Your task to perform on an android device: What's the weather today? Image 0: 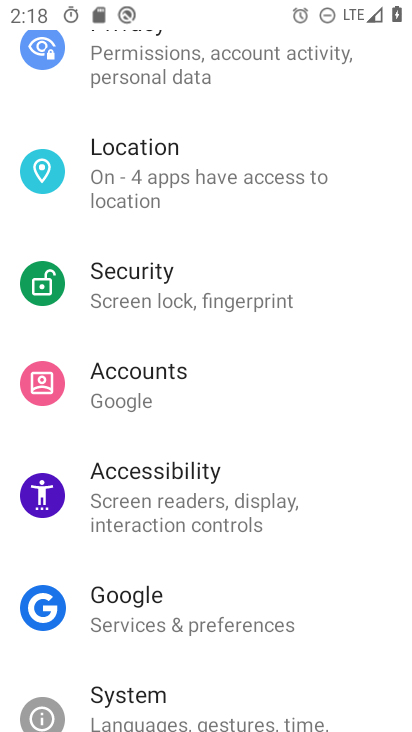
Step 0: press home button
Your task to perform on an android device: What's the weather today? Image 1: 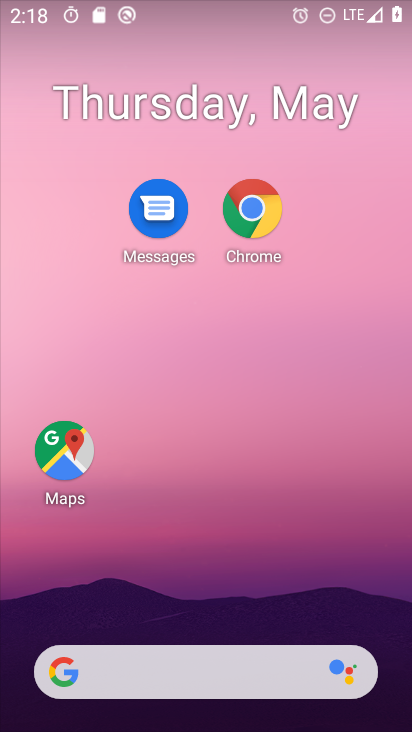
Step 1: click (161, 666)
Your task to perform on an android device: What's the weather today? Image 2: 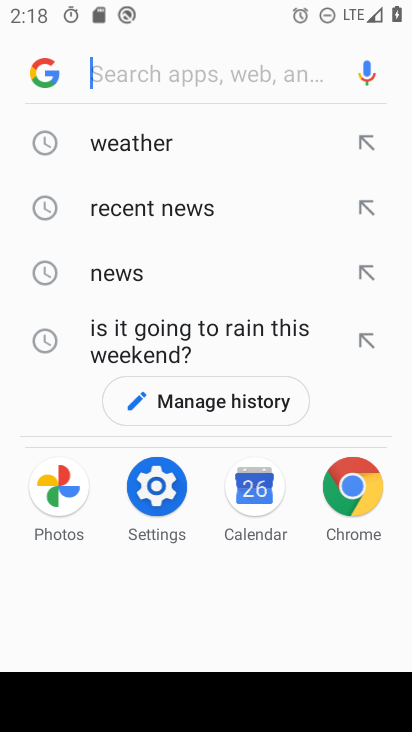
Step 2: click (137, 149)
Your task to perform on an android device: What's the weather today? Image 3: 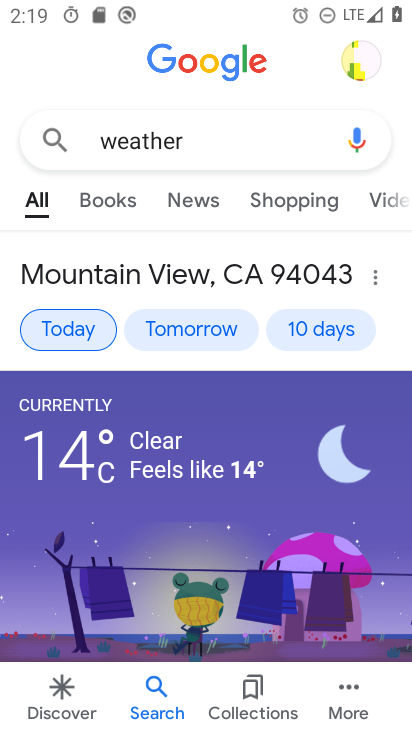
Step 3: task complete